Your task to perform on an android device: Go to Wikipedia Image 0: 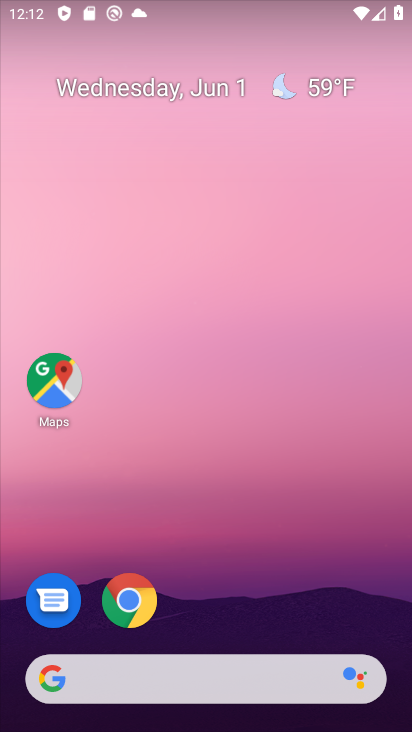
Step 0: click (127, 598)
Your task to perform on an android device: Go to Wikipedia Image 1: 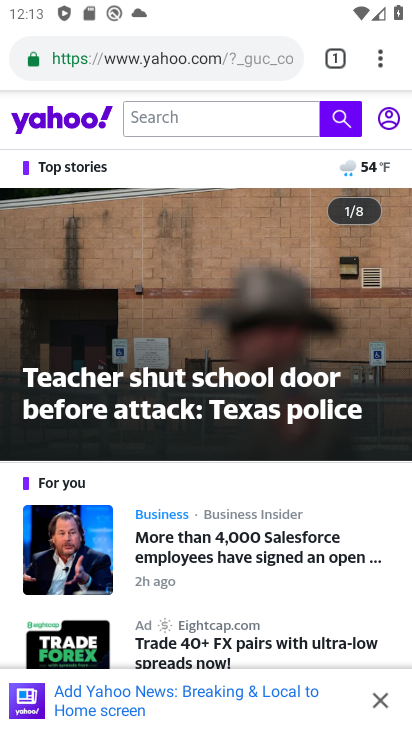
Step 1: click (330, 62)
Your task to perform on an android device: Go to Wikipedia Image 2: 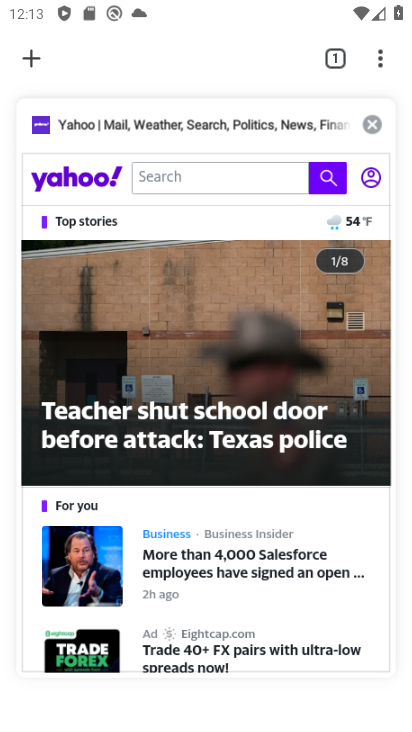
Step 2: click (37, 54)
Your task to perform on an android device: Go to Wikipedia Image 3: 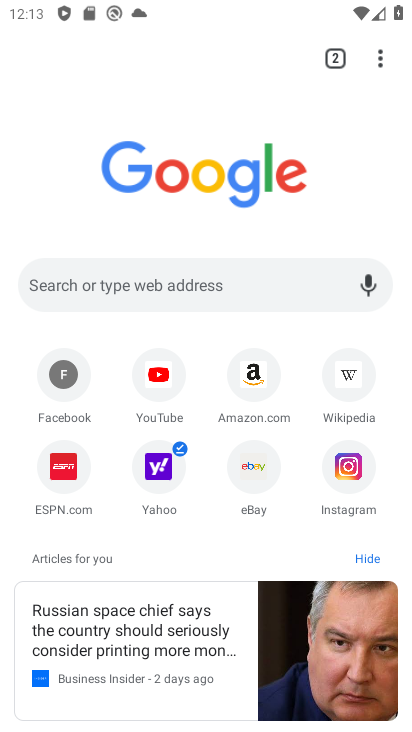
Step 3: click (340, 393)
Your task to perform on an android device: Go to Wikipedia Image 4: 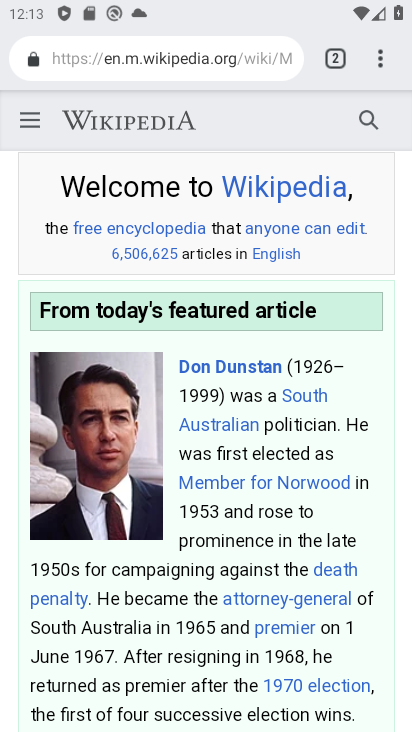
Step 4: task complete